Your task to perform on an android device: Open calendar and show me the first week of next month Image 0: 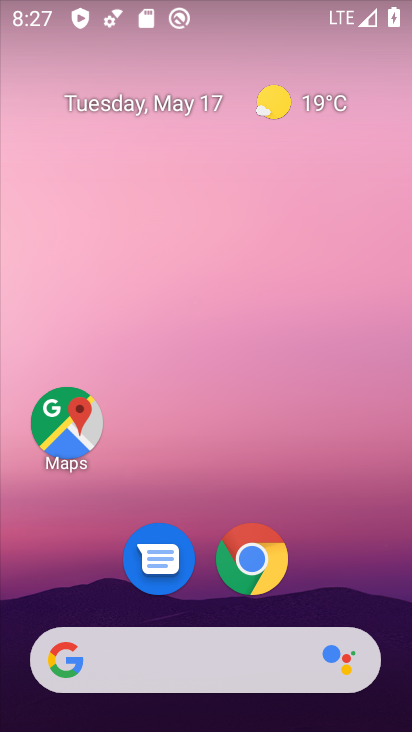
Step 0: drag from (188, 602) to (213, 120)
Your task to perform on an android device: Open calendar and show me the first week of next month Image 1: 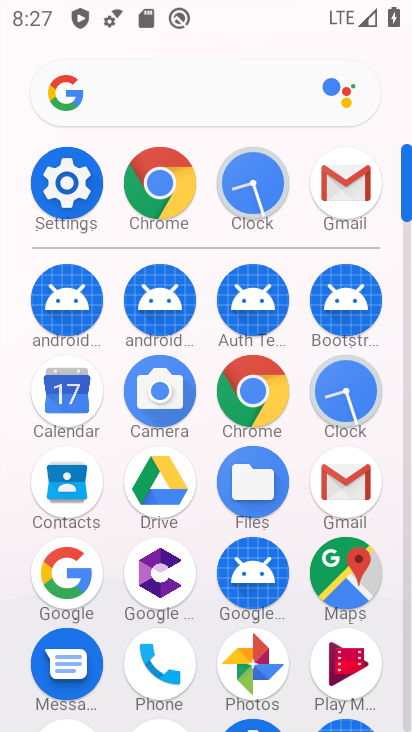
Step 1: click (40, 407)
Your task to perform on an android device: Open calendar and show me the first week of next month Image 2: 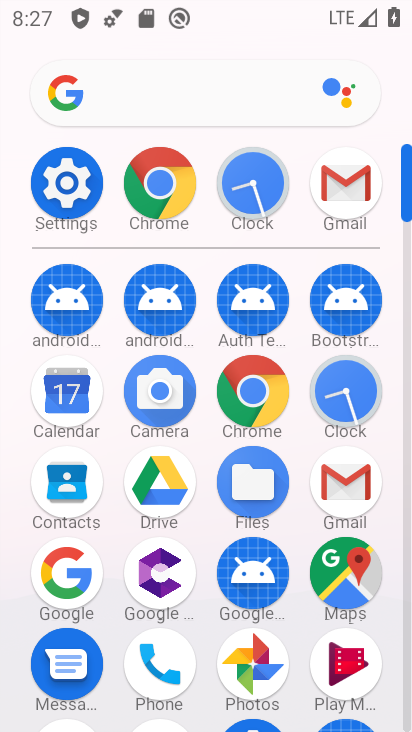
Step 2: click (40, 407)
Your task to perform on an android device: Open calendar and show me the first week of next month Image 3: 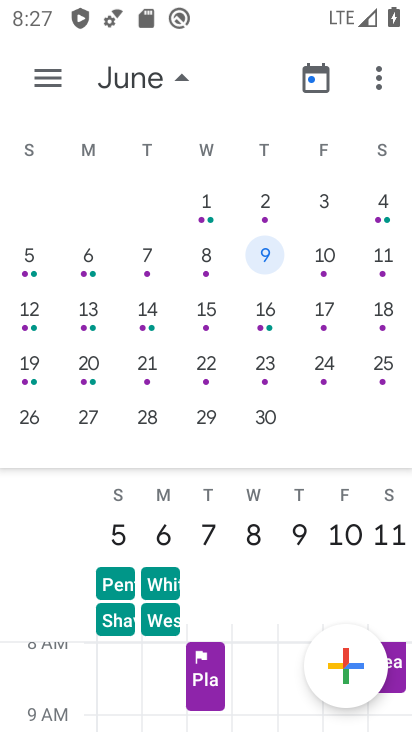
Step 3: drag from (363, 257) to (327, 287)
Your task to perform on an android device: Open calendar and show me the first week of next month Image 4: 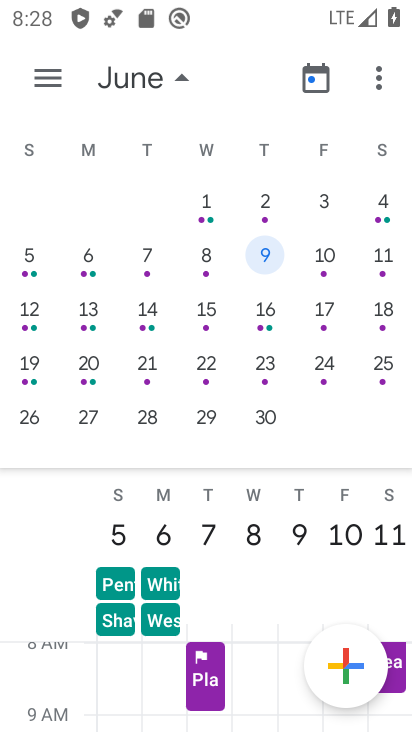
Step 4: click (389, 202)
Your task to perform on an android device: Open calendar and show me the first week of next month Image 5: 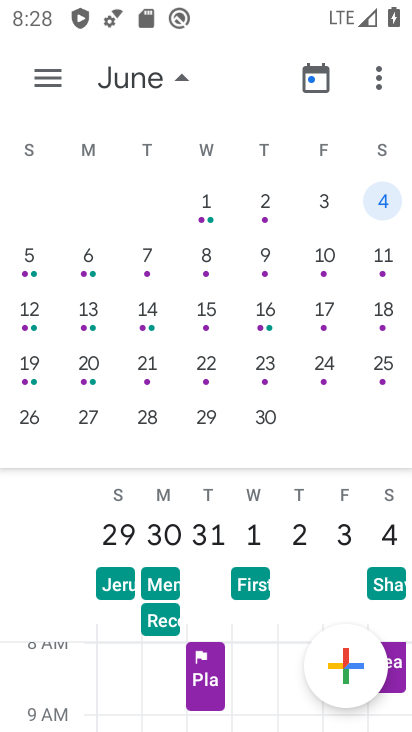
Step 5: task complete